Your task to perform on an android device: Turn off the flashlight Image 0: 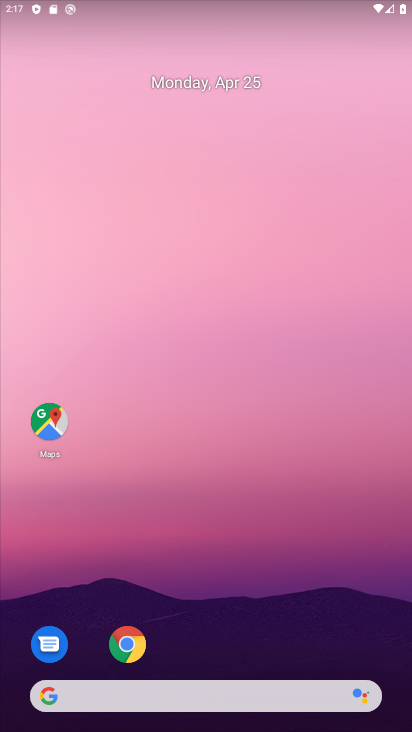
Step 0: drag from (210, 11) to (208, 371)
Your task to perform on an android device: Turn off the flashlight Image 1: 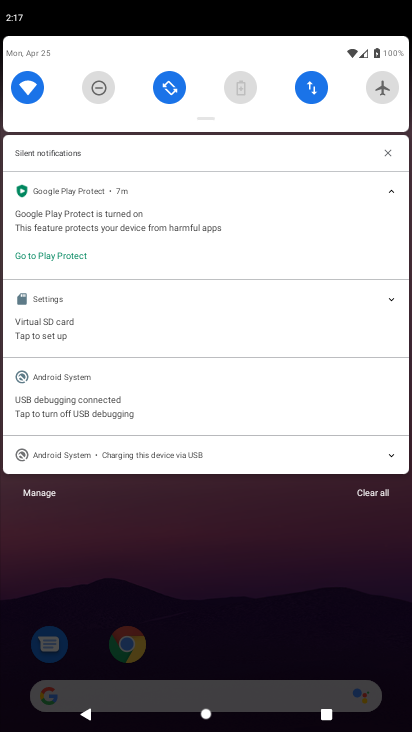
Step 1: drag from (208, 95) to (217, 391)
Your task to perform on an android device: Turn off the flashlight Image 2: 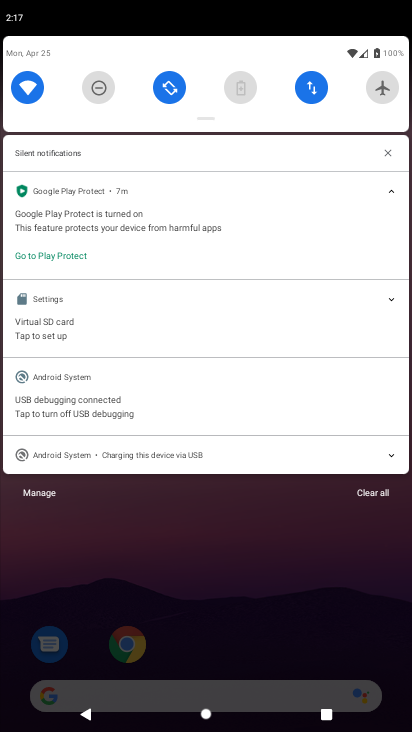
Step 2: drag from (204, 104) to (269, 441)
Your task to perform on an android device: Turn off the flashlight Image 3: 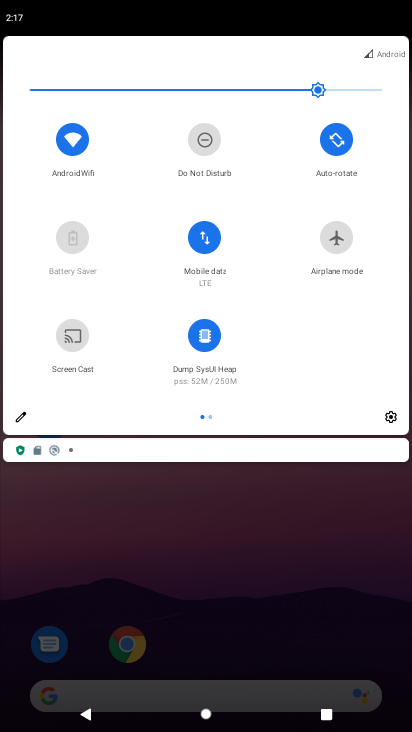
Step 3: drag from (364, 361) to (103, 374)
Your task to perform on an android device: Turn off the flashlight Image 4: 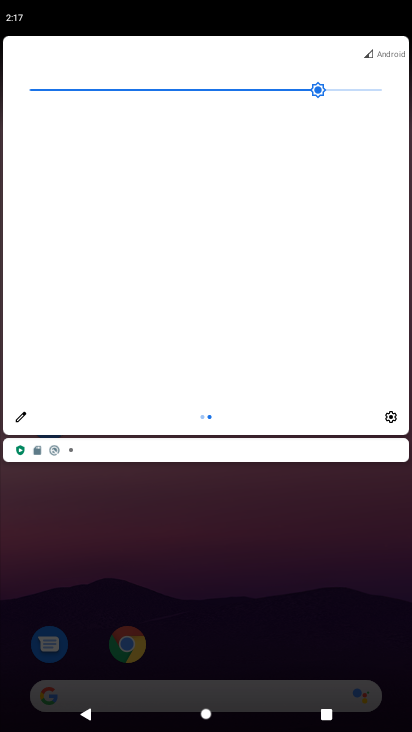
Step 4: click (21, 406)
Your task to perform on an android device: Turn off the flashlight Image 5: 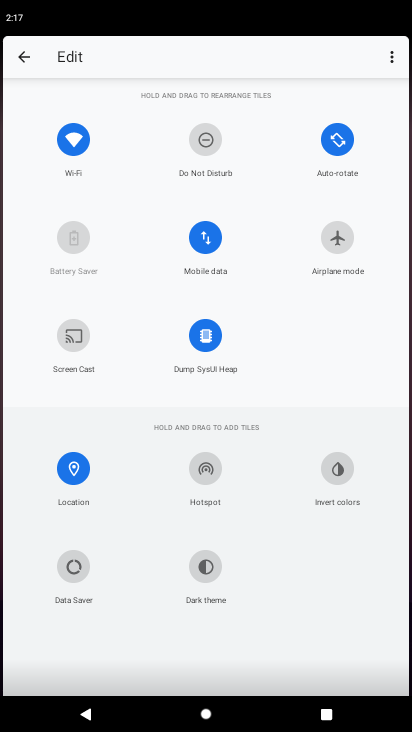
Step 5: task complete